Your task to perform on an android device: Open sound settings Image 0: 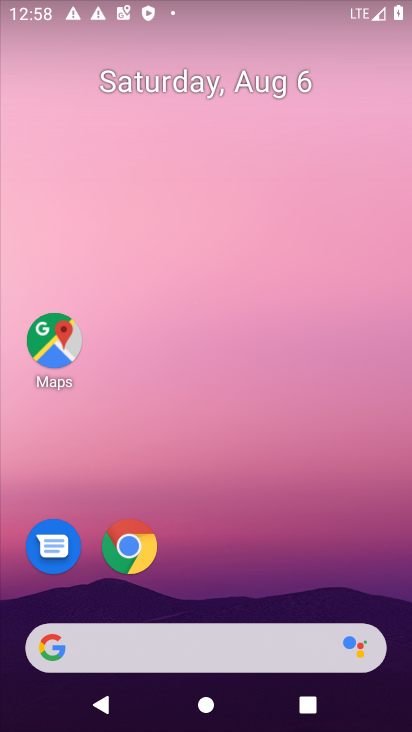
Step 0: drag from (373, 591) to (377, 132)
Your task to perform on an android device: Open sound settings Image 1: 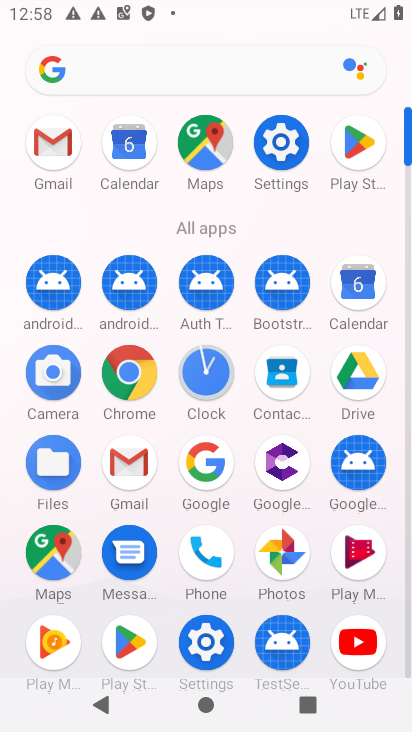
Step 1: click (206, 641)
Your task to perform on an android device: Open sound settings Image 2: 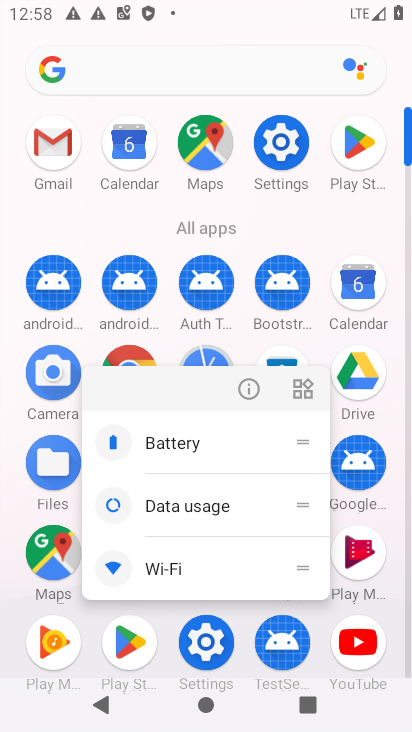
Step 2: click (206, 641)
Your task to perform on an android device: Open sound settings Image 3: 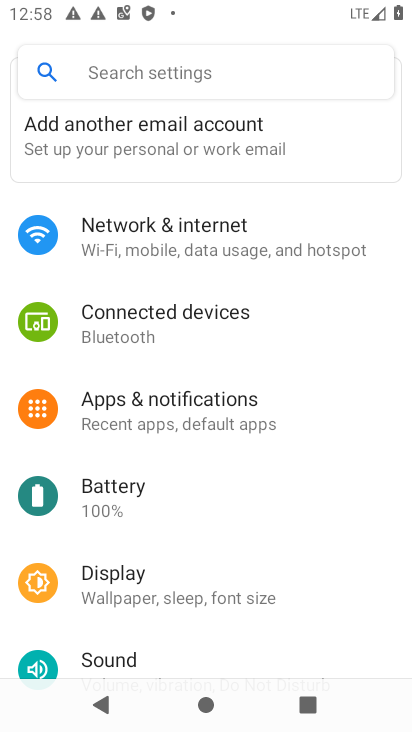
Step 3: drag from (316, 616) to (332, 244)
Your task to perform on an android device: Open sound settings Image 4: 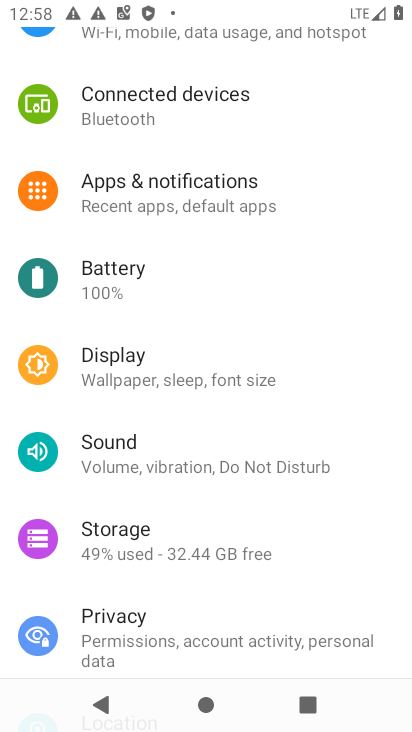
Step 4: click (112, 445)
Your task to perform on an android device: Open sound settings Image 5: 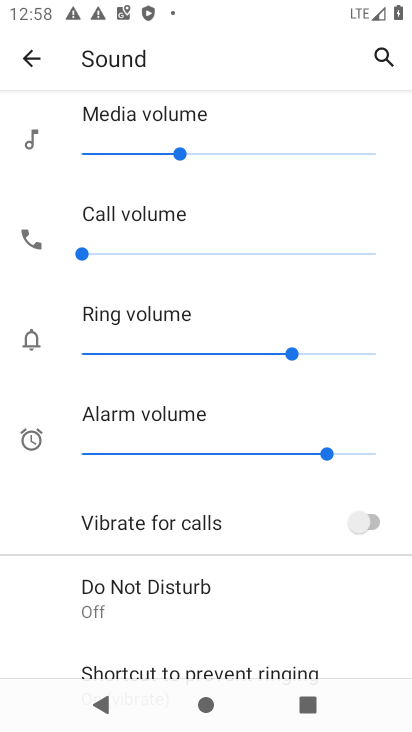
Step 5: drag from (286, 612) to (294, 242)
Your task to perform on an android device: Open sound settings Image 6: 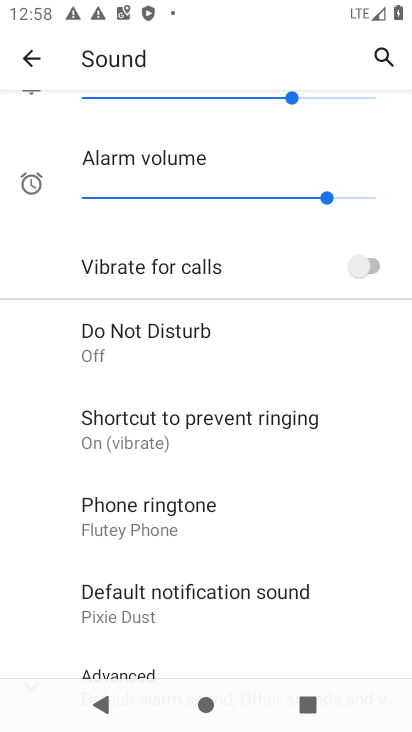
Step 6: drag from (289, 529) to (308, 215)
Your task to perform on an android device: Open sound settings Image 7: 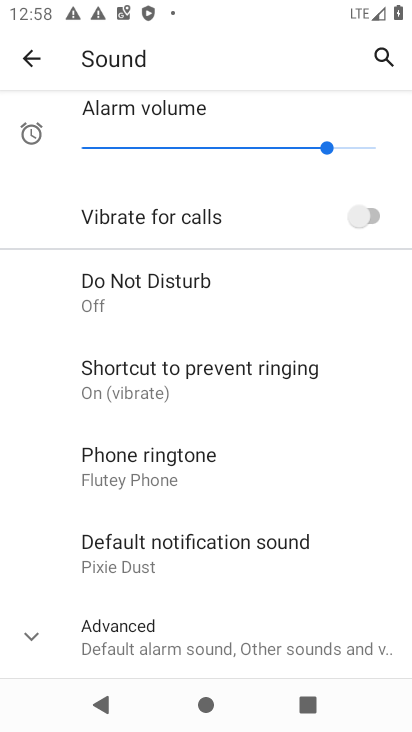
Step 7: click (31, 630)
Your task to perform on an android device: Open sound settings Image 8: 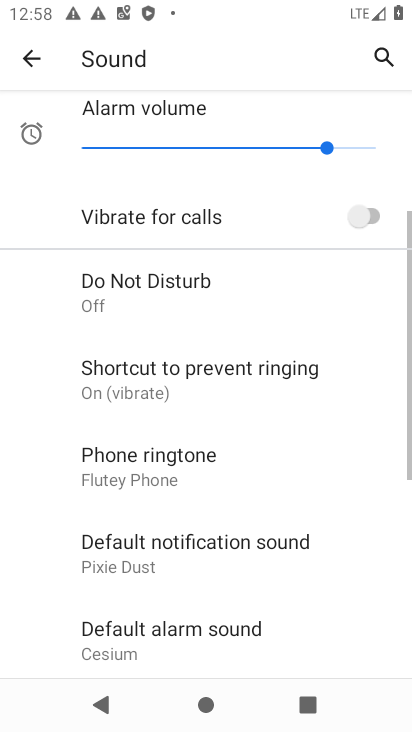
Step 8: task complete